Your task to perform on an android device: toggle priority inbox in the gmail app Image 0: 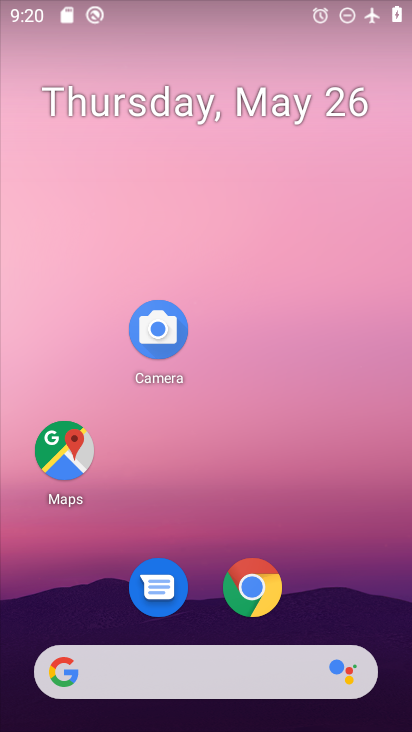
Step 0: drag from (216, 616) to (231, 161)
Your task to perform on an android device: toggle priority inbox in the gmail app Image 1: 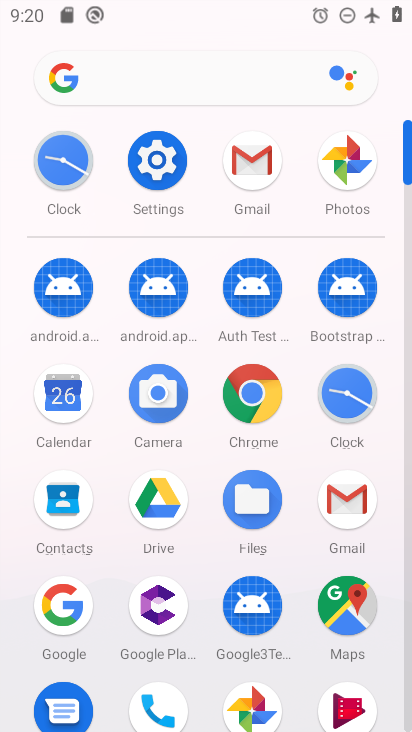
Step 1: click (362, 504)
Your task to perform on an android device: toggle priority inbox in the gmail app Image 2: 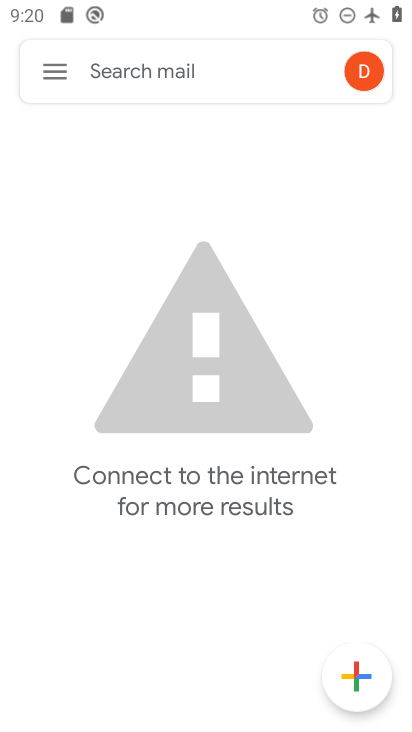
Step 2: click (39, 58)
Your task to perform on an android device: toggle priority inbox in the gmail app Image 3: 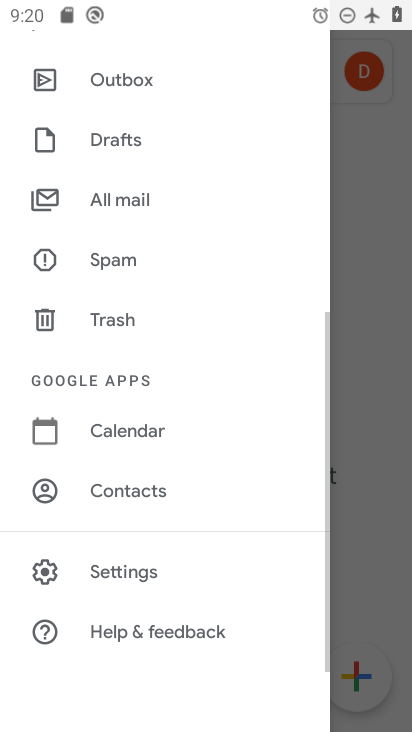
Step 3: click (165, 564)
Your task to perform on an android device: toggle priority inbox in the gmail app Image 4: 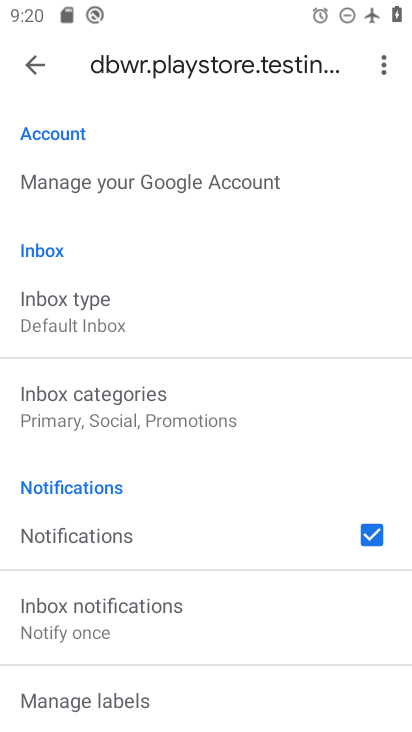
Step 4: click (173, 303)
Your task to perform on an android device: toggle priority inbox in the gmail app Image 5: 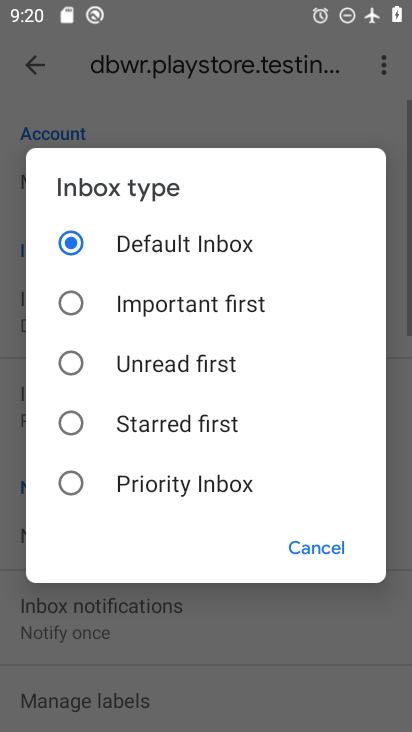
Step 5: click (175, 475)
Your task to perform on an android device: toggle priority inbox in the gmail app Image 6: 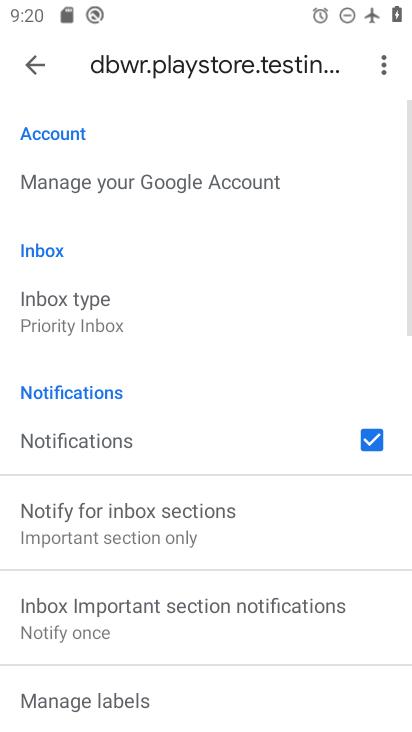
Step 6: task complete